Your task to perform on an android device: turn off notifications settings in the gmail app Image 0: 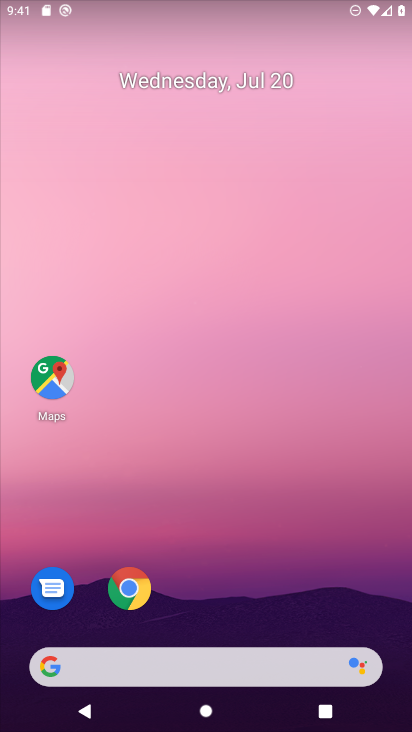
Step 0: drag from (192, 623) to (291, 194)
Your task to perform on an android device: turn off notifications settings in the gmail app Image 1: 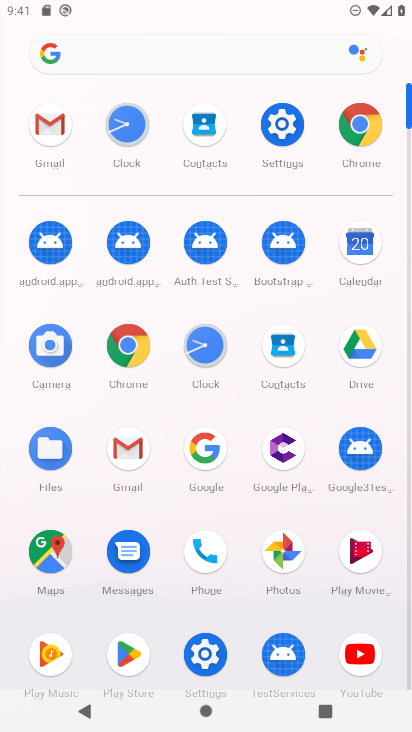
Step 1: click (45, 143)
Your task to perform on an android device: turn off notifications settings in the gmail app Image 2: 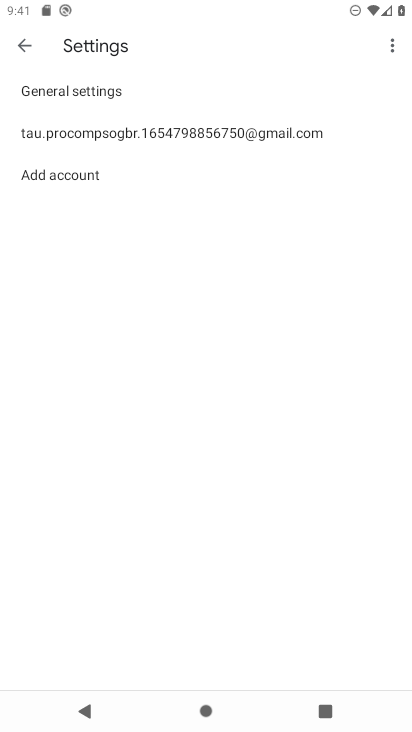
Step 2: click (45, 143)
Your task to perform on an android device: turn off notifications settings in the gmail app Image 3: 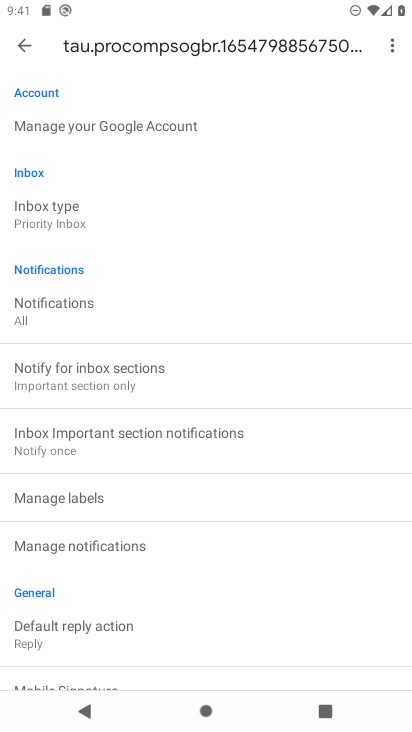
Step 3: click (99, 309)
Your task to perform on an android device: turn off notifications settings in the gmail app Image 4: 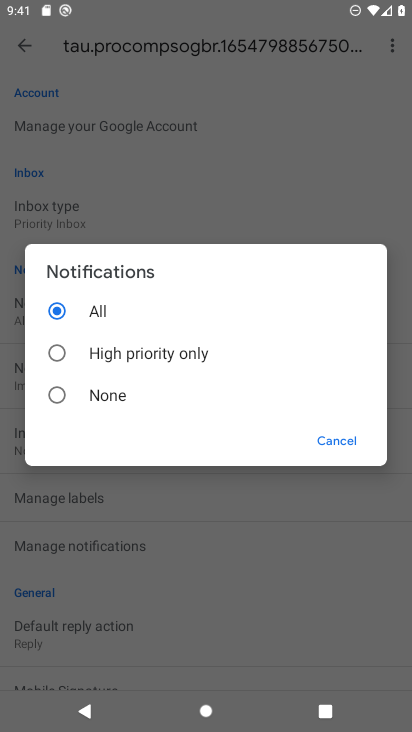
Step 4: click (156, 392)
Your task to perform on an android device: turn off notifications settings in the gmail app Image 5: 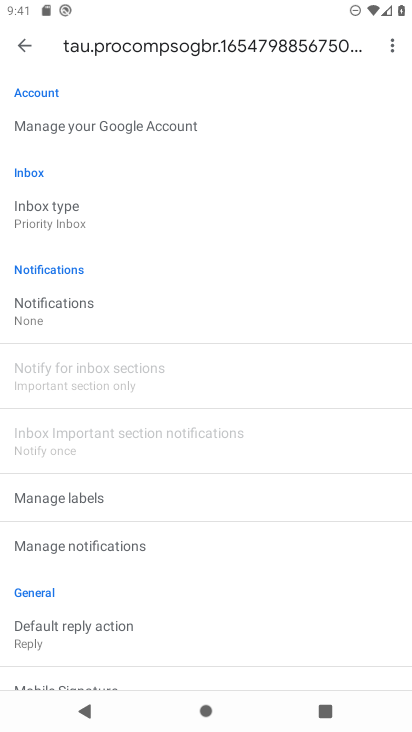
Step 5: task complete